Your task to perform on an android device: Open the phone app and click the voicemail tab. Image 0: 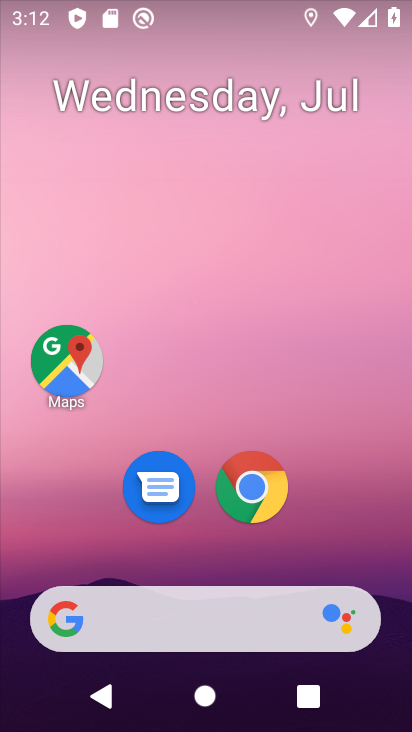
Step 0: drag from (159, 380) to (261, 1)
Your task to perform on an android device: Open the phone app and click the voicemail tab. Image 1: 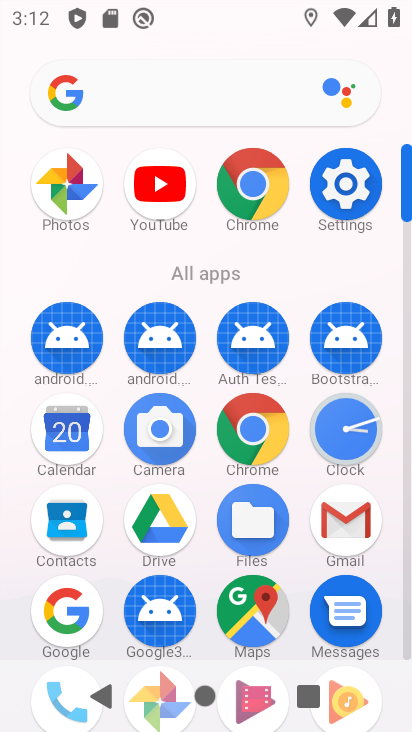
Step 1: drag from (141, 602) to (238, 200)
Your task to perform on an android device: Open the phone app and click the voicemail tab. Image 2: 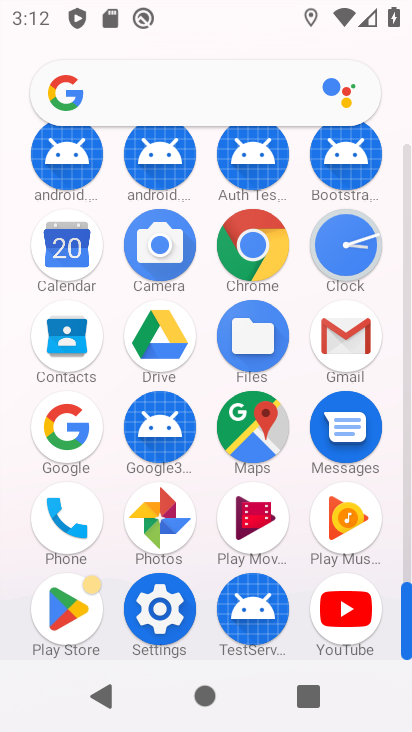
Step 2: click (64, 531)
Your task to perform on an android device: Open the phone app and click the voicemail tab. Image 3: 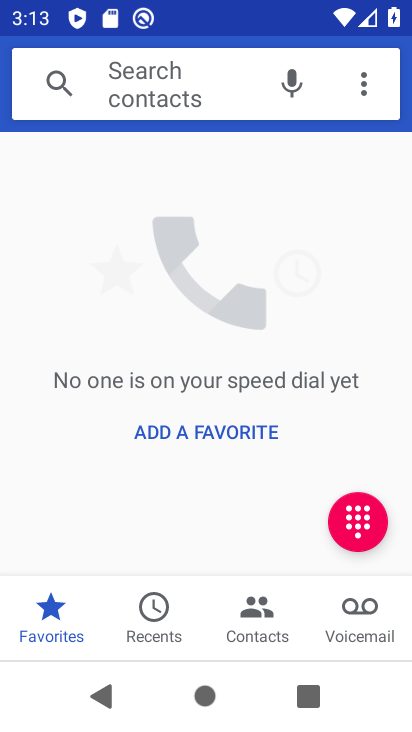
Step 3: click (365, 619)
Your task to perform on an android device: Open the phone app and click the voicemail tab. Image 4: 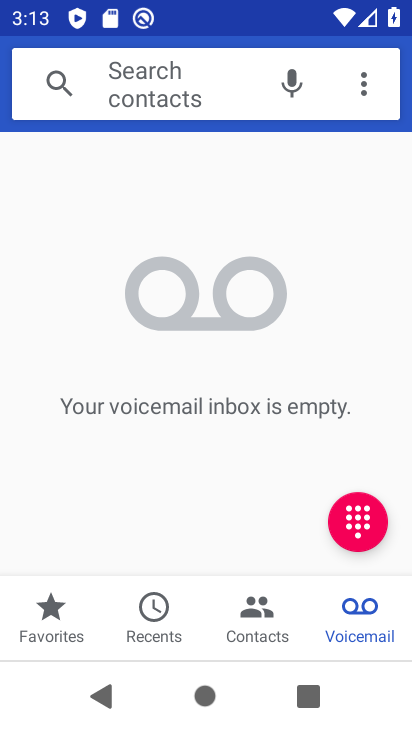
Step 4: task complete